Your task to perform on an android device: turn on wifi Image 0: 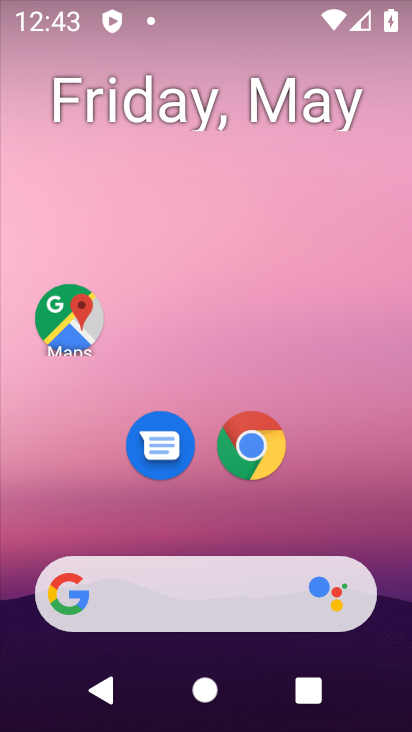
Step 0: drag from (190, 503) to (172, 4)
Your task to perform on an android device: turn on wifi Image 1: 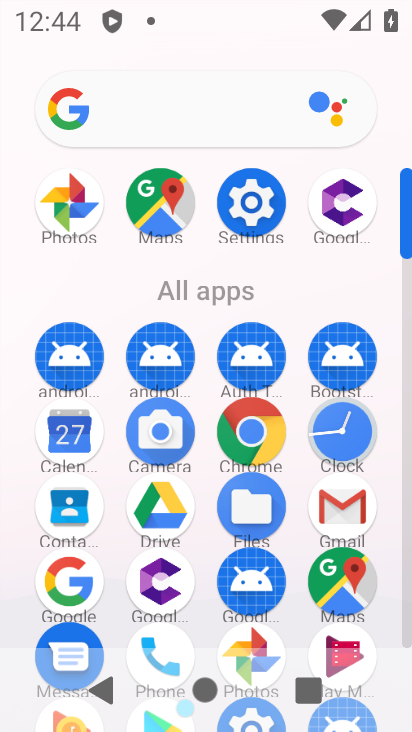
Step 1: click (238, 199)
Your task to perform on an android device: turn on wifi Image 2: 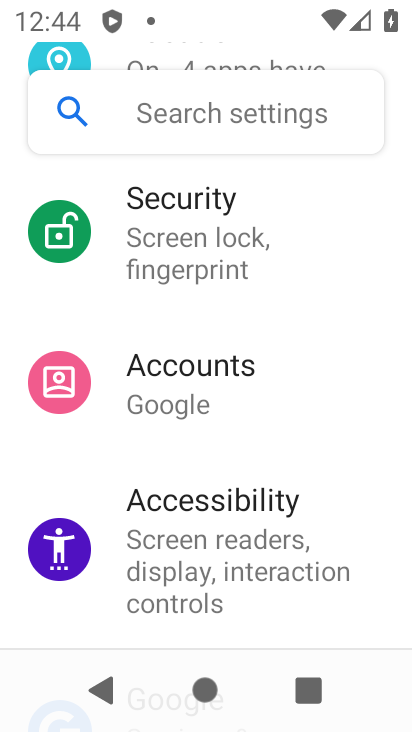
Step 2: drag from (175, 278) to (234, 626)
Your task to perform on an android device: turn on wifi Image 3: 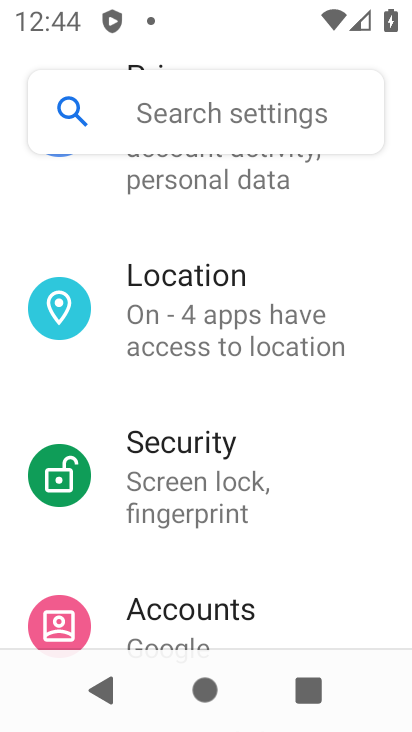
Step 3: drag from (211, 332) to (243, 730)
Your task to perform on an android device: turn on wifi Image 4: 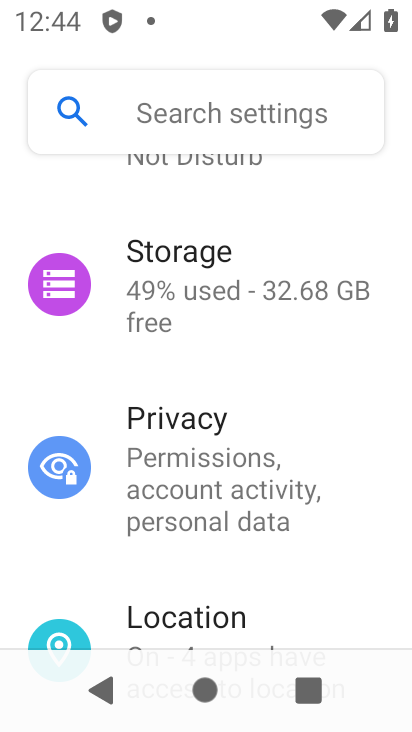
Step 4: drag from (187, 280) to (219, 636)
Your task to perform on an android device: turn on wifi Image 5: 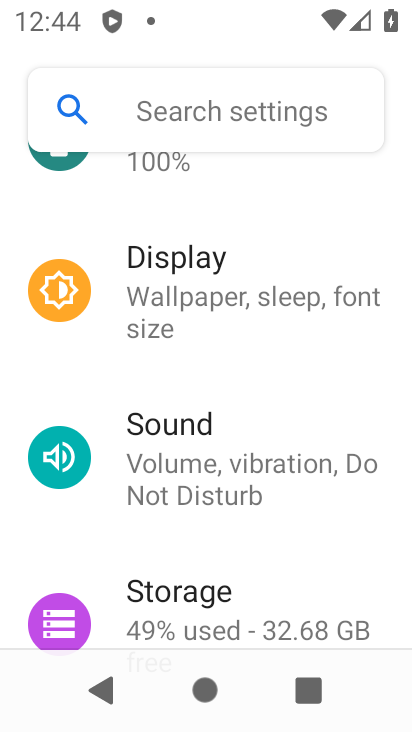
Step 5: drag from (240, 291) to (199, 712)
Your task to perform on an android device: turn on wifi Image 6: 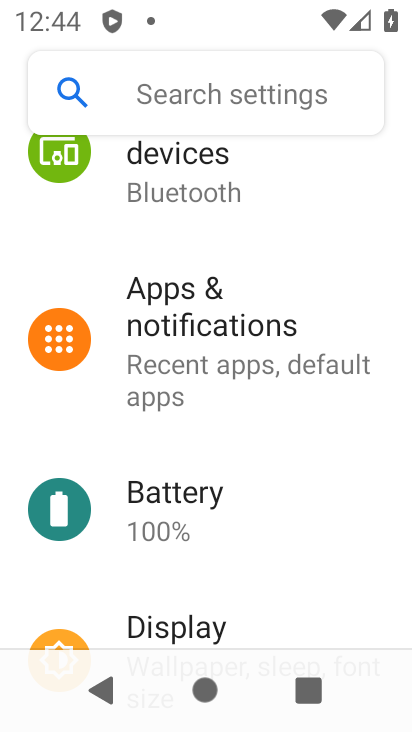
Step 6: drag from (229, 292) to (212, 724)
Your task to perform on an android device: turn on wifi Image 7: 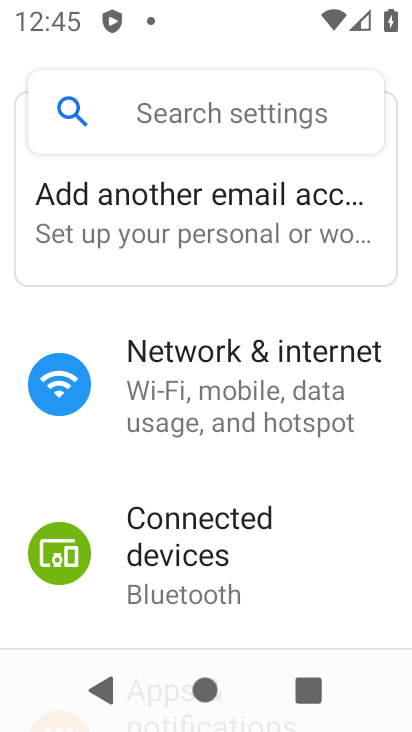
Step 7: click (214, 402)
Your task to perform on an android device: turn on wifi Image 8: 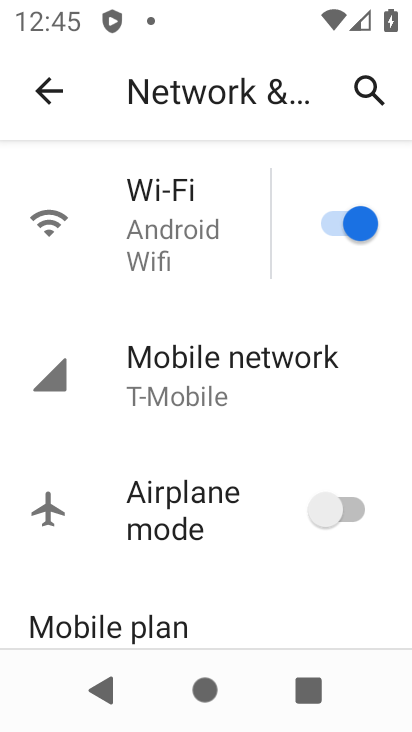
Step 8: task complete